Your task to perform on an android device: remove spam from my inbox in the gmail app Image 0: 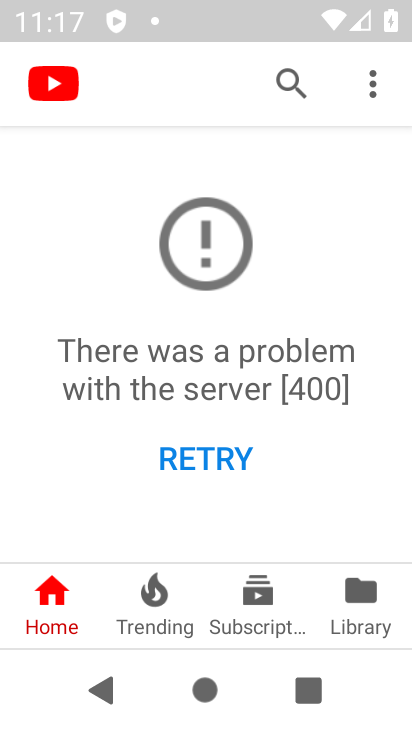
Step 0: press home button
Your task to perform on an android device: remove spam from my inbox in the gmail app Image 1: 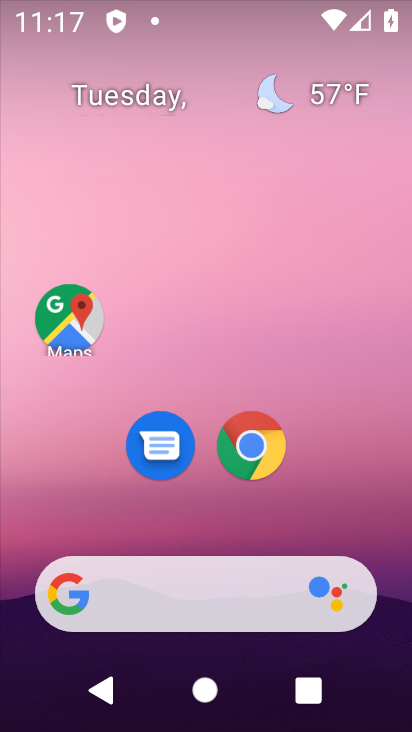
Step 1: drag from (377, 522) to (364, 125)
Your task to perform on an android device: remove spam from my inbox in the gmail app Image 2: 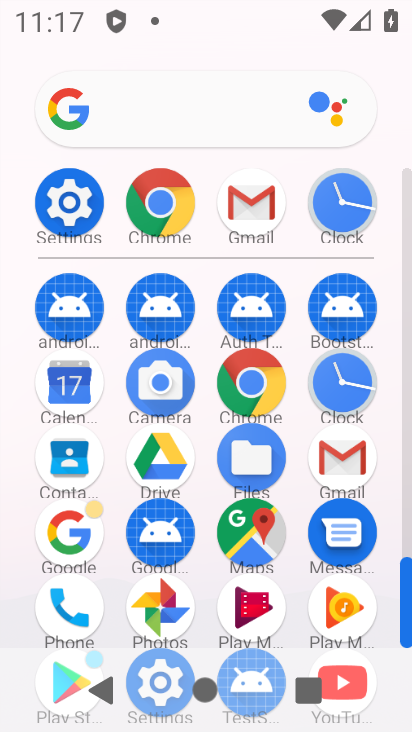
Step 2: click (348, 469)
Your task to perform on an android device: remove spam from my inbox in the gmail app Image 3: 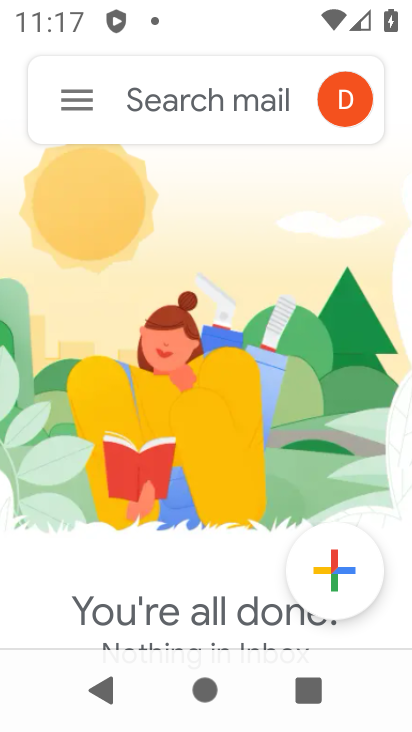
Step 3: click (81, 92)
Your task to perform on an android device: remove spam from my inbox in the gmail app Image 4: 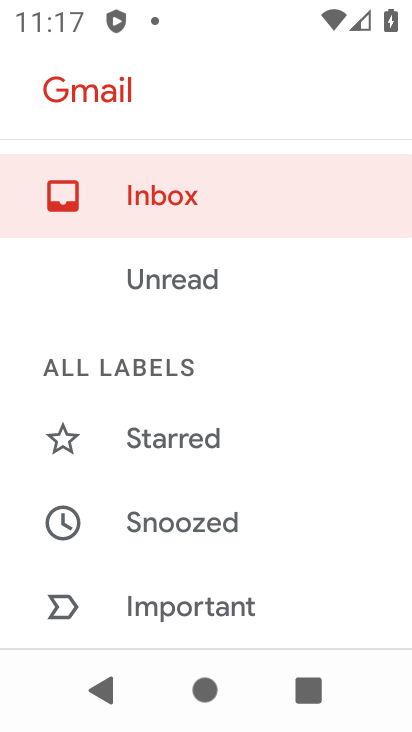
Step 4: drag from (318, 535) to (328, 424)
Your task to perform on an android device: remove spam from my inbox in the gmail app Image 5: 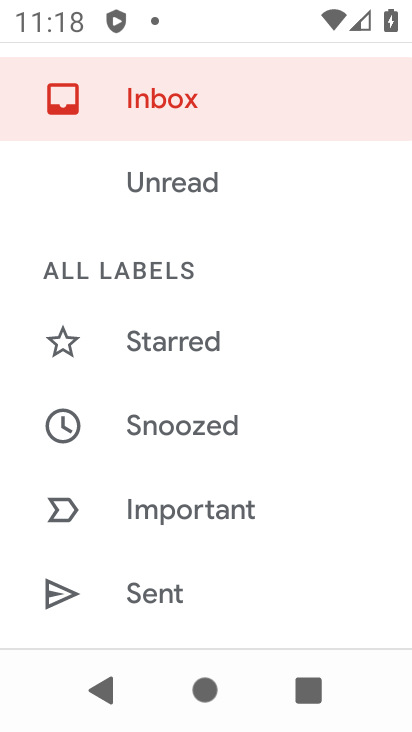
Step 5: drag from (334, 566) to (327, 409)
Your task to perform on an android device: remove spam from my inbox in the gmail app Image 6: 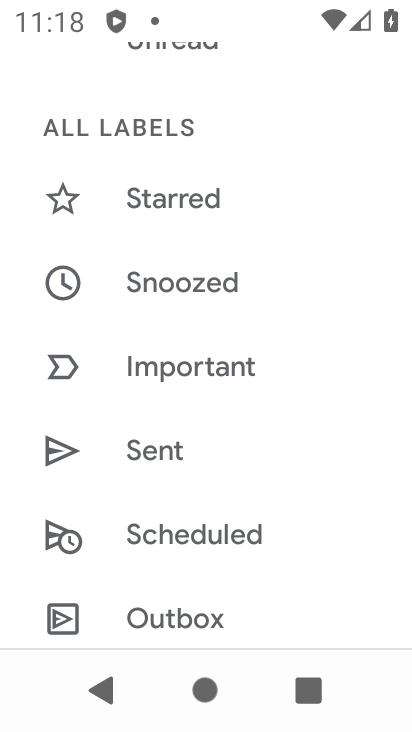
Step 6: drag from (324, 578) to (330, 421)
Your task to perform on an android device: remove spam from my inbox in the gmail app Image 7: 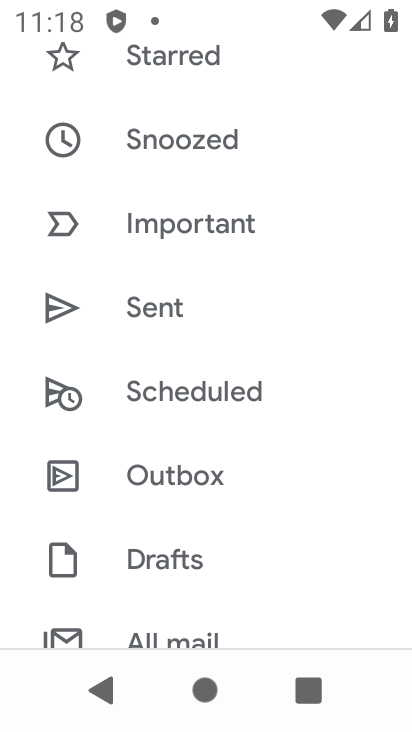
Step 7: drag from (284, 367) to (327, 214)
Your task to perform on an android device: remove spam from my inbox in the gmail app Image 8: 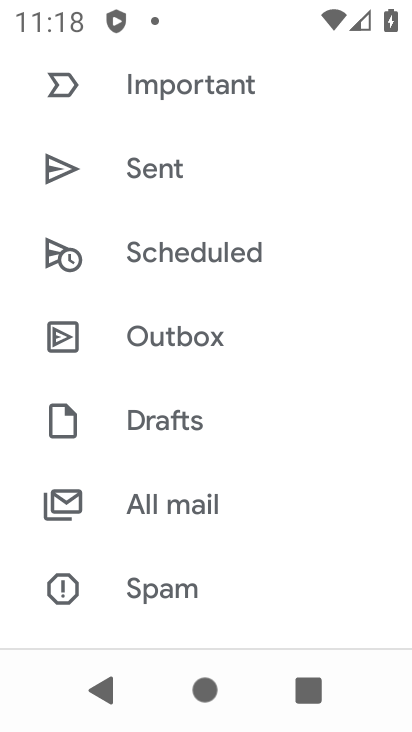
Step 8: drag from (323, 425) to (336, 253)
Your task to perform on an android device: remove spam from my inbox in the gmail app Image 9: 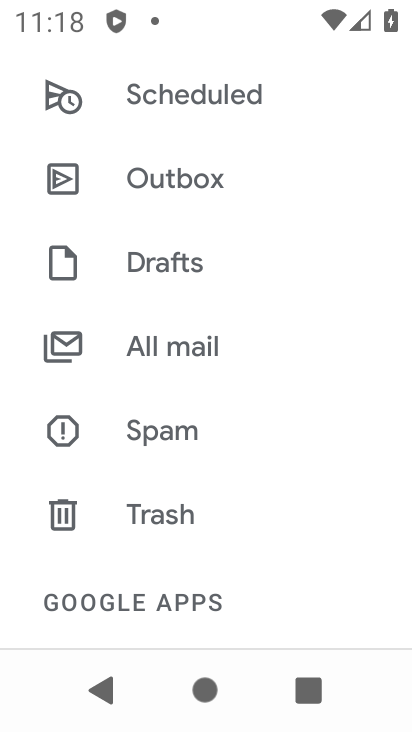
Step 9: drag from (312, 425) to (317, 220)
Your task to perform on an android device: remove spam from my inbox in the gmail app Image 10: 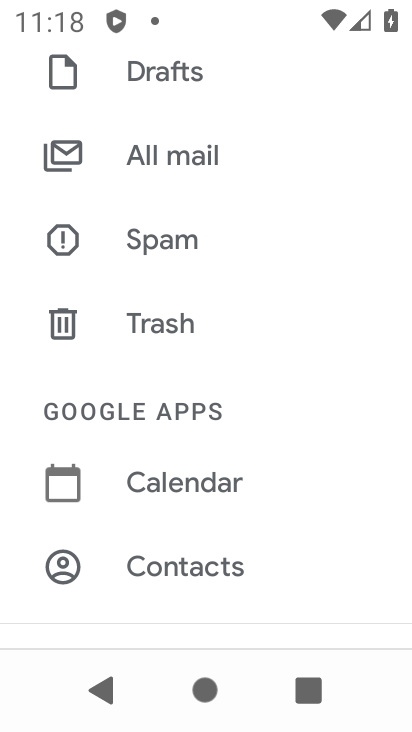
Step 10: drag from (291, 447) to (322, 279)
Your task to perform on an android device: remove spam from my inbox in the gmail app Image 11: 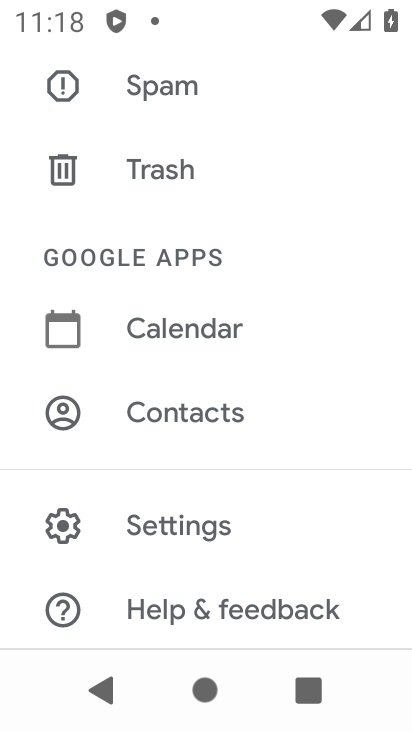
Step 11: drag from (328, 520) to (322, 364)
Your task to perform on an android device: remove spam from my inbox in the gmail app Image 12: 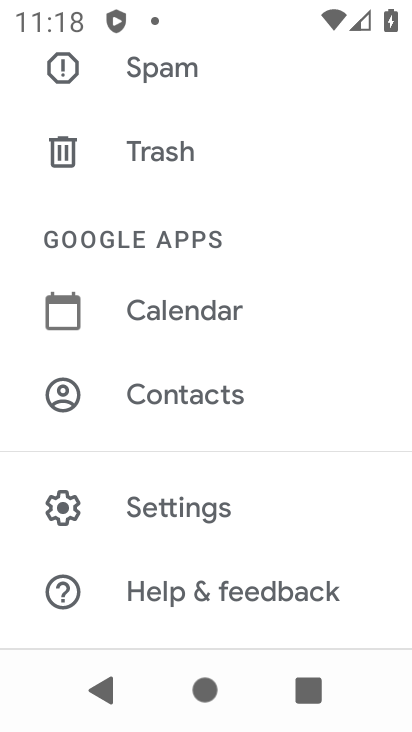
Step 12: click (162, 70)
Your task to perform on an android device: remove spam from my inbox in the gmail app Image 13: 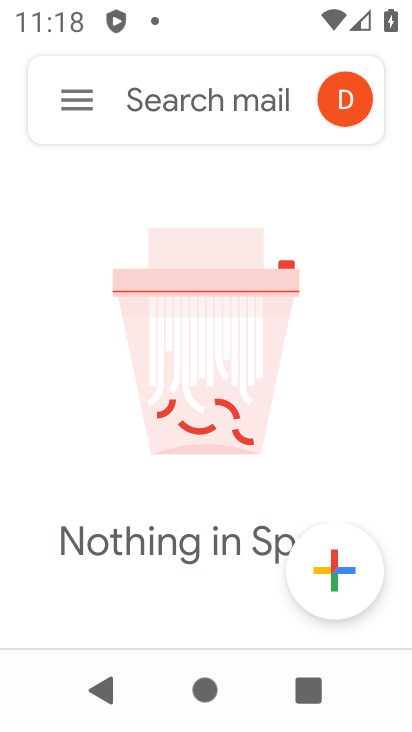
Step 13: task complete